Your task to perform on an android device: Toggle the flashlight Image 0: 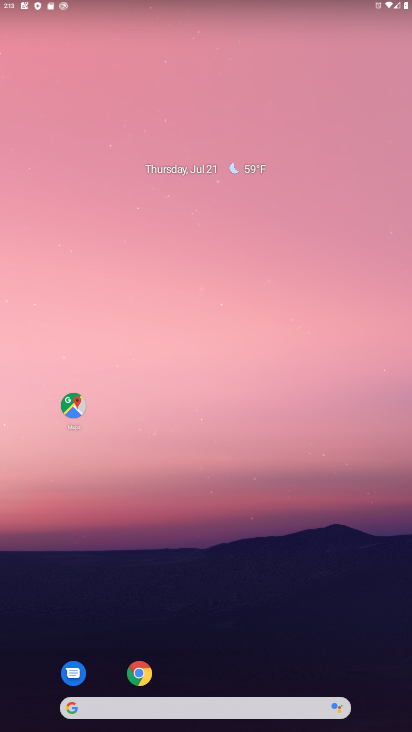
Step 0: drag from (183, 709) to (257, 97)
Your task to perform on an android device: Toggle the flashlight Image 1: 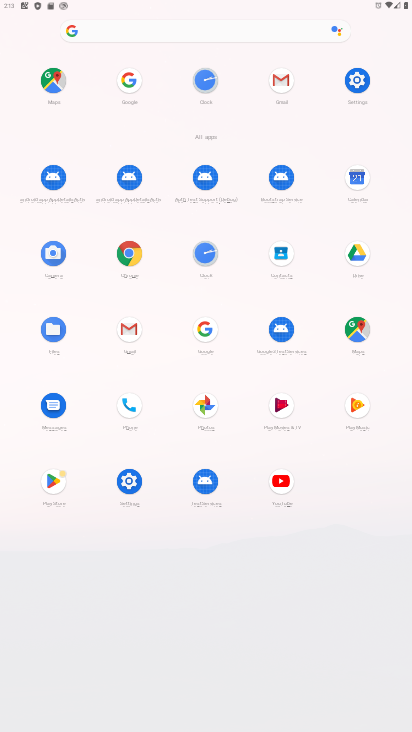
Step 1: click (357, 79)
Your task to perform on an android device: Toggle the flashlight Image 2: 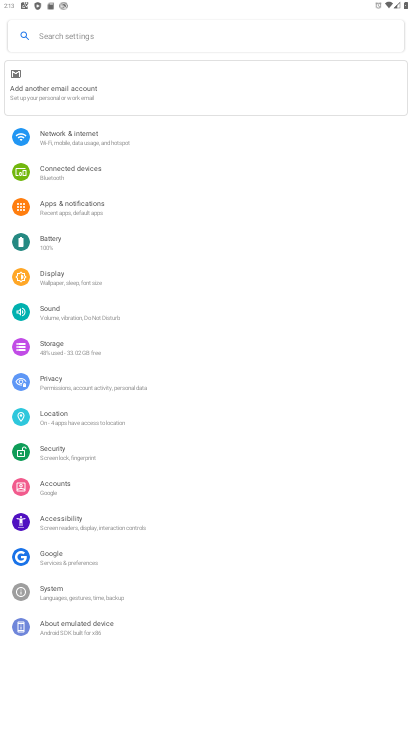
Step 2: click (136, 28)
Your task to perform on an android device: Toggle the flashlight Image 3: 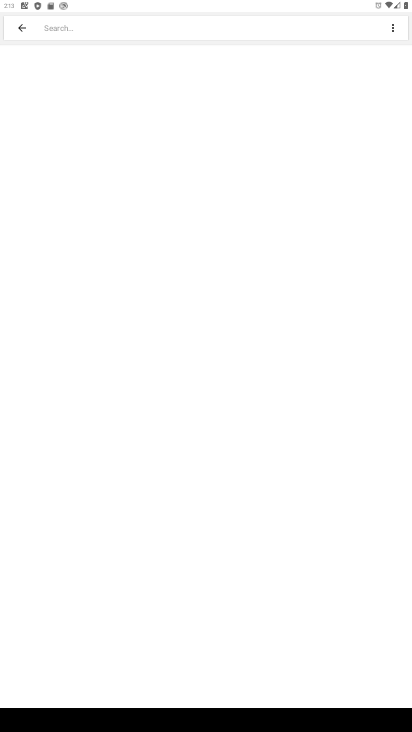
Step 3: type "flashlight"
Your task to perform on an android device: Toggle the flashlight Image 4: 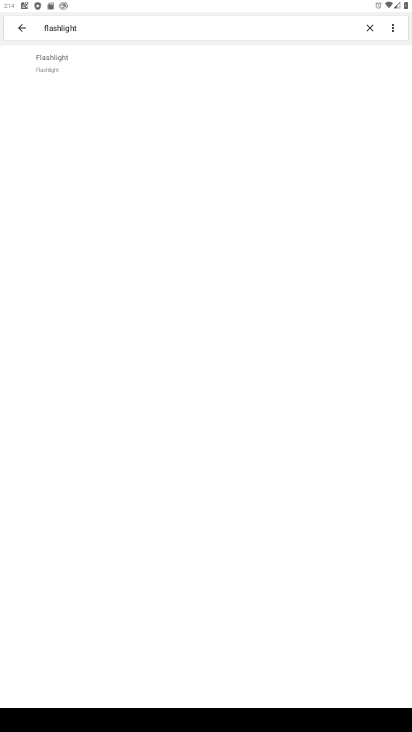
Step 4: click (59, 64)
Your task to perform on an android device: Toggle the flashlight Image 5: 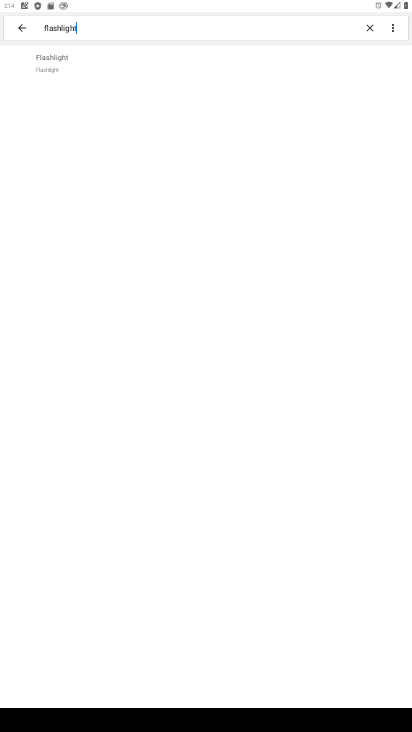
Step 5: click (59, 64)
Your task to perform on an android device: Toggle the flashlight Image 6: 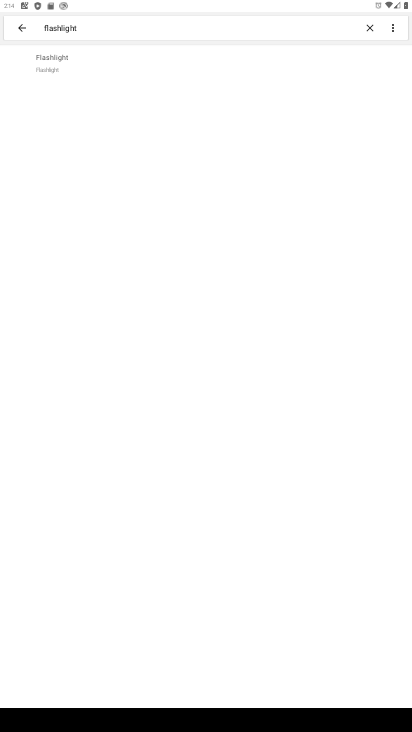
Step 6: task complete